Your task to perform on an android device: Clear the shopping cart on newegg.com. Add lenovo thinkpad to the cart on newegg.com Image 0: 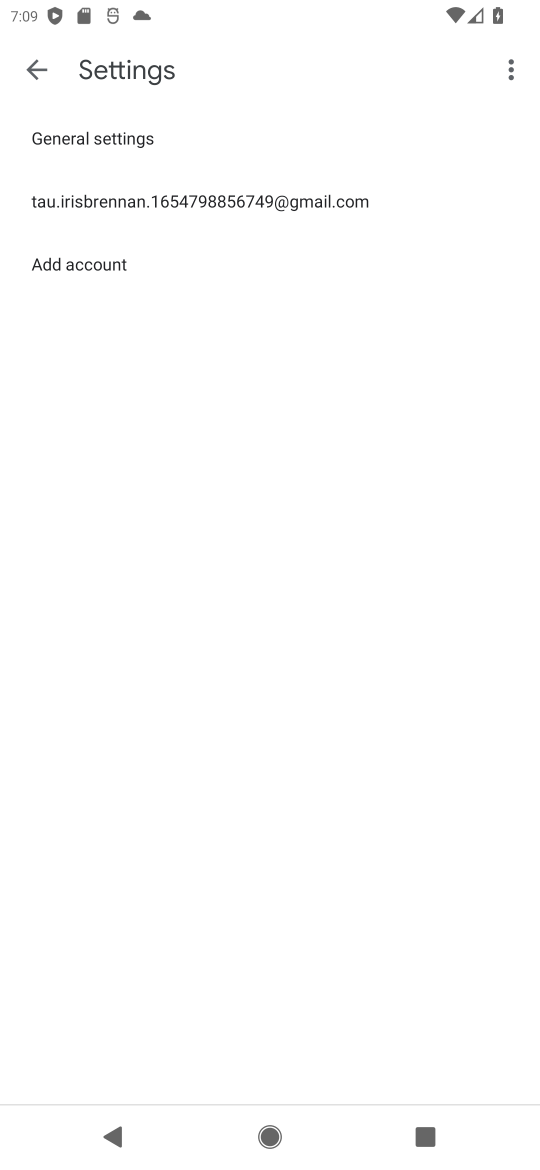
Step 0: press home button
Your task to perform on an android device: Clear the shopping cart on newegg.com. Add lenovo thinkpad to the cart on newegg.com Image 1: 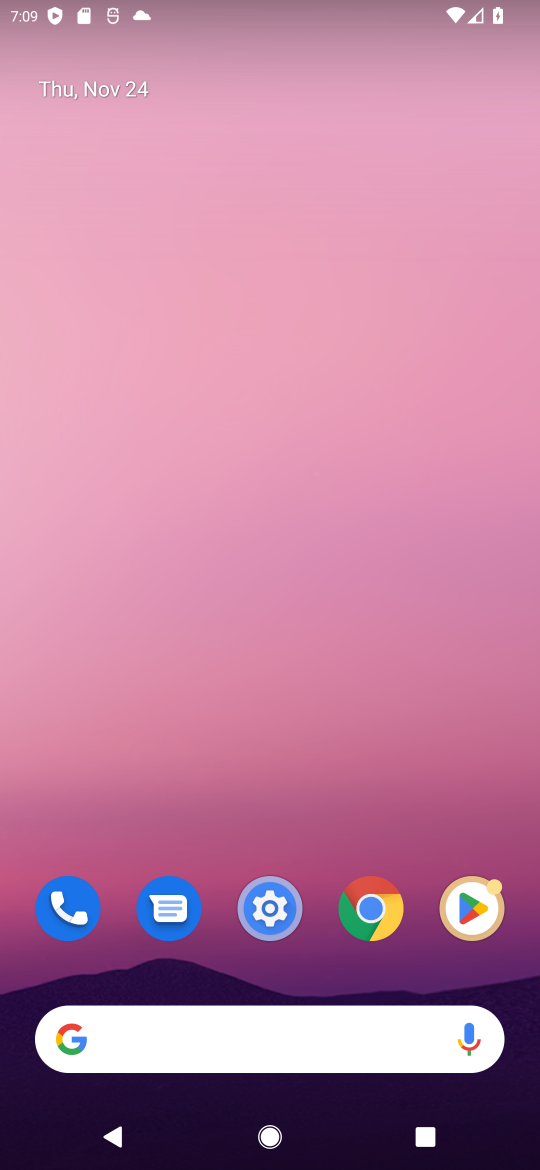
Step 1: click (368, 1020)
Your task to perform on an android device: Clear the shopping cart on newegg.com. Add lenovo thinkpad to the cart on newegg.com Image 2: 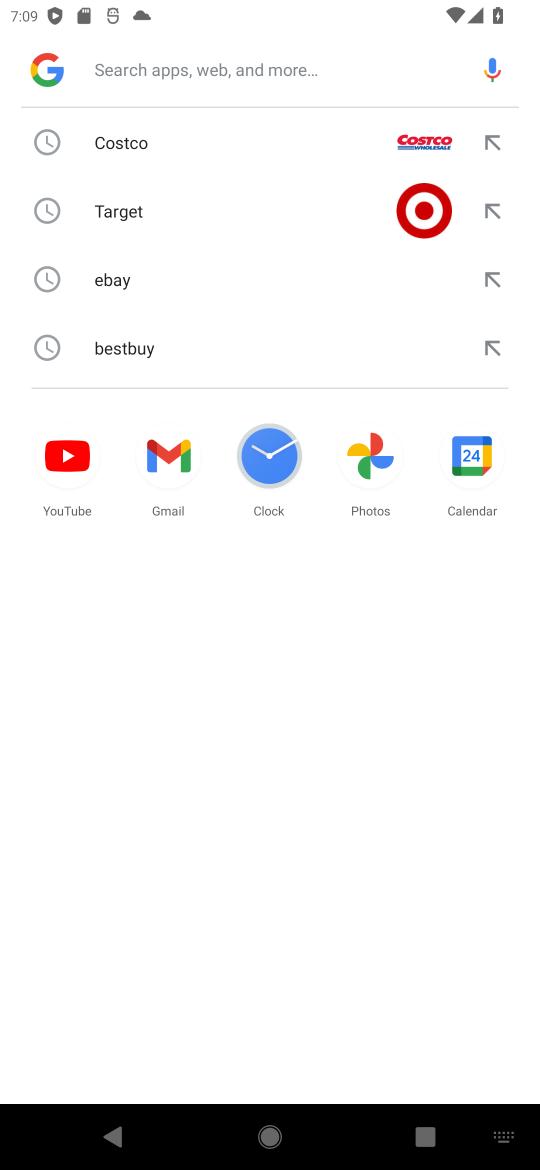
Step 2: type "newegg"
Your task to perform on an android device: Clear the shopping cart on newegg.com. Add lenovo thinkpad to the cart on newegg.com Image 3: 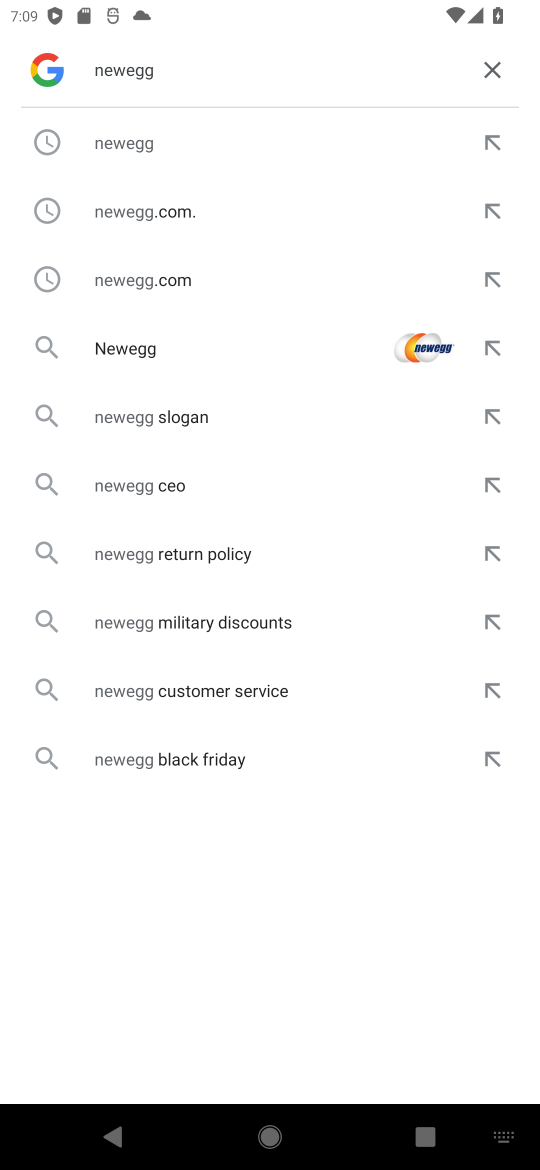
Step 3: click (224, 138)
Your task to perform on an android device: Clear the shopping cart on newegg.com. Add lenovo thinkpad to the cart on newegg.com Image 4: 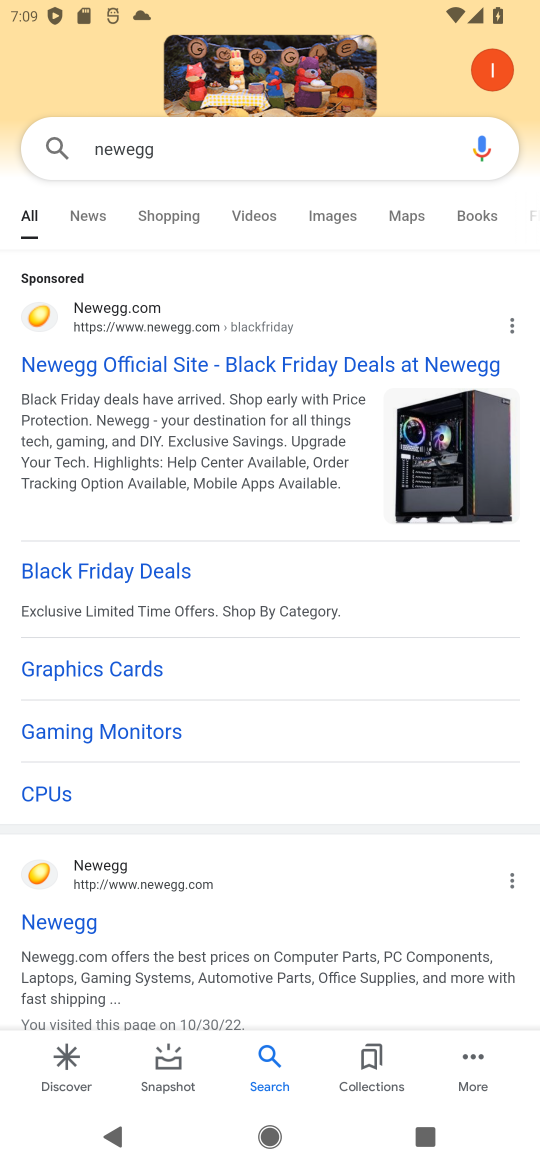
Step 4: click (40, 379)
Your task to perform on an android device: Clear the shopping cart on newegg.com. Add lenovo thinkpad to the cart on newegg.com Image 5: 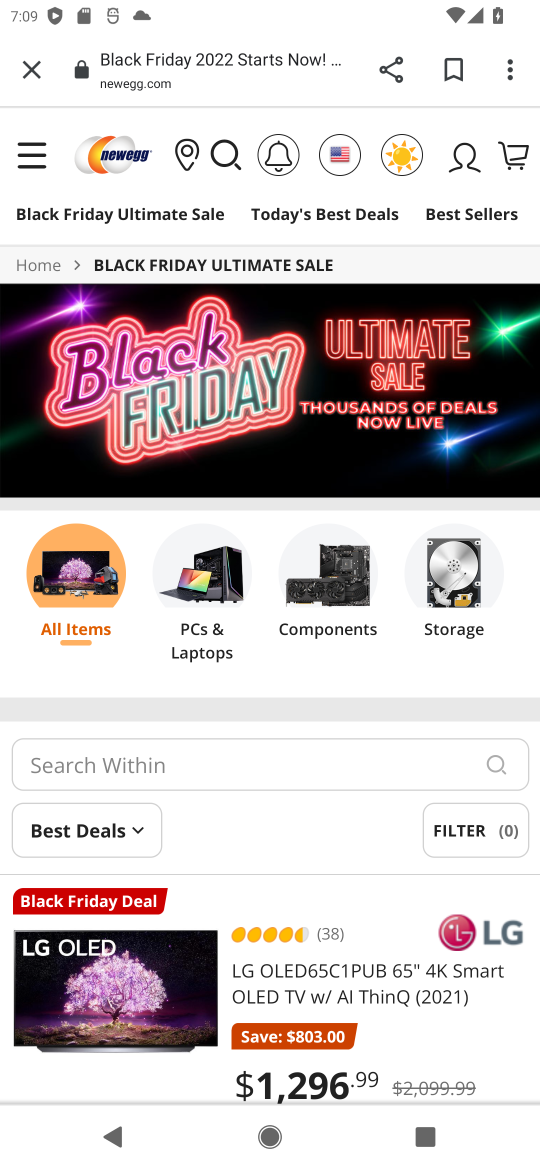
Step 5: drag from (318, 885) to (254, 623)
Your task to perform on an android device: Clear the shopping cart on newegg.com. Add lenovo thinkpad to the cart on newegg.com Image 6: 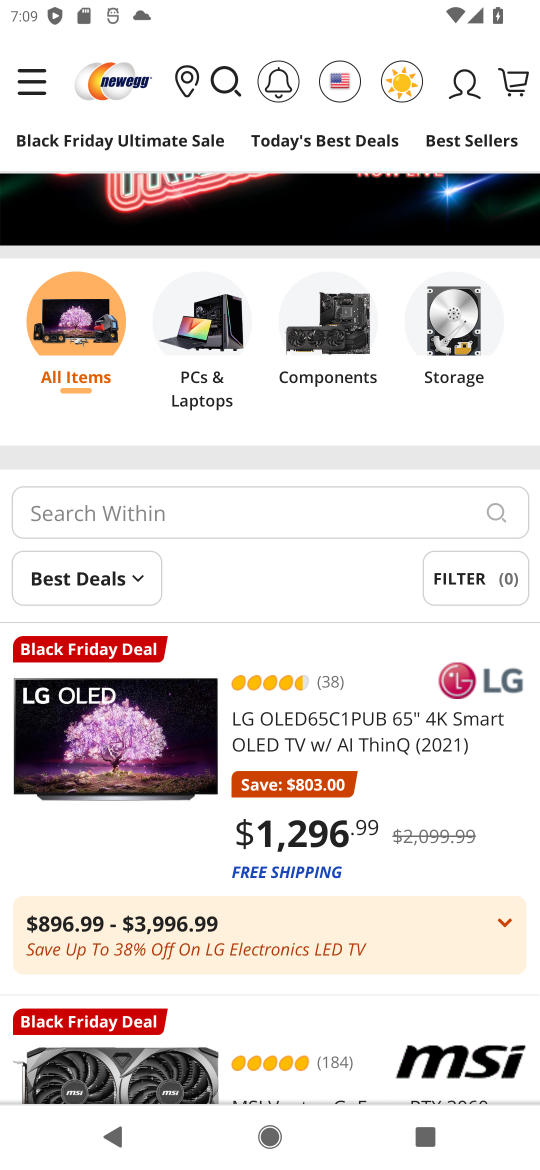
Step 6: click (255, 505)
Your task to perform on an android device: Clear the shopping cart on newegg.com. Add lenovo thinkpad to the cart on newegg.com Image 7: 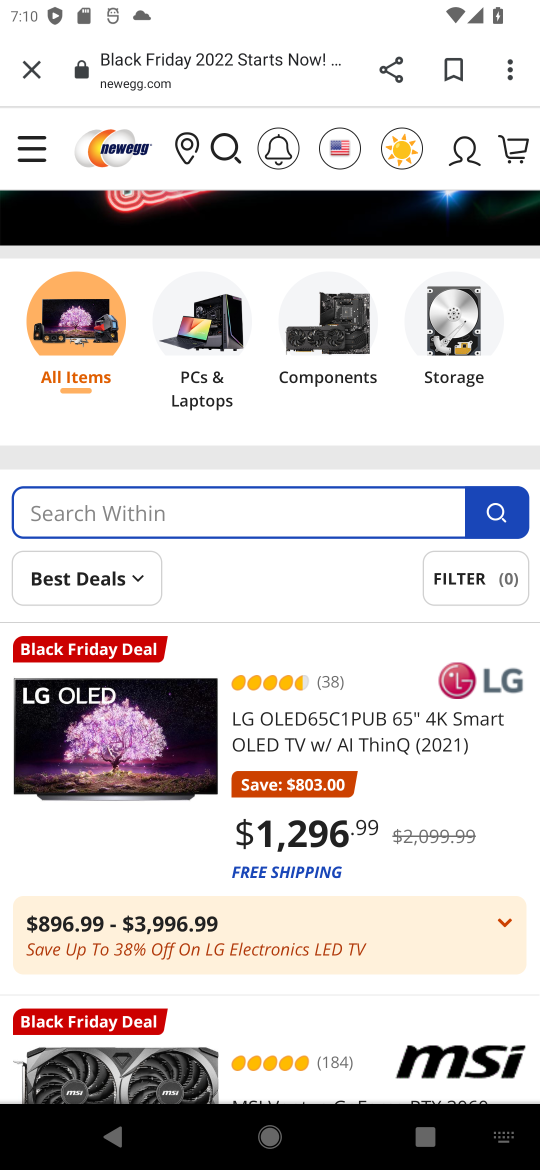
Step 7: type "lenovo thikpad"
Your task to perform on an android device: Clear the shopping cart on newegg.com. Add lenovo thinkpad to the cart on newegg.com Image 8: 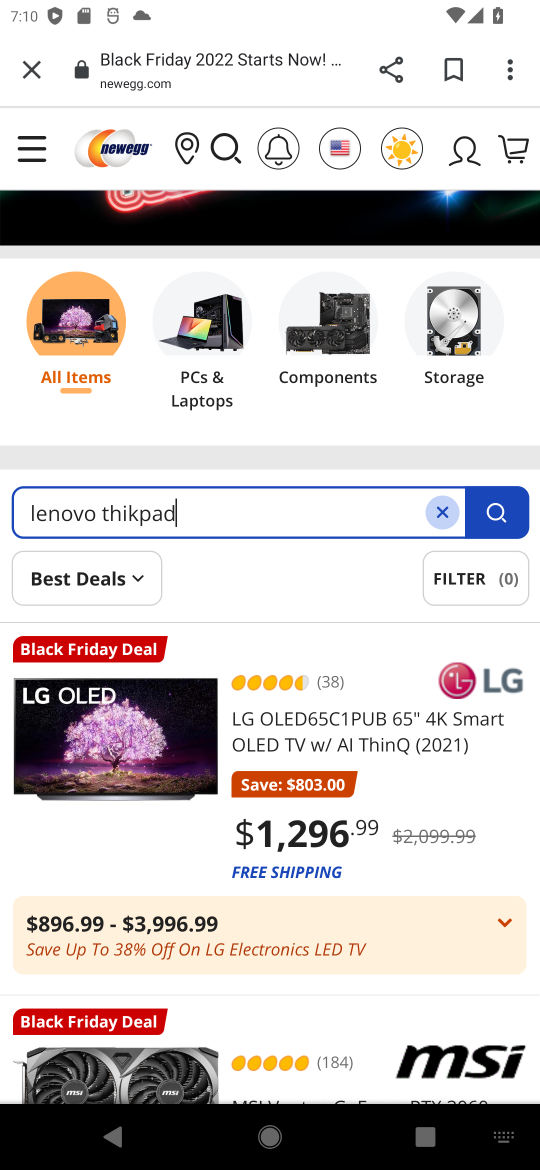
Step 8: click (492, 515)
Your task to perform on an android device: Clear the shopping cart on newegg.com. Add lenovo thinkpad to the cart on newegg.com Image 9: 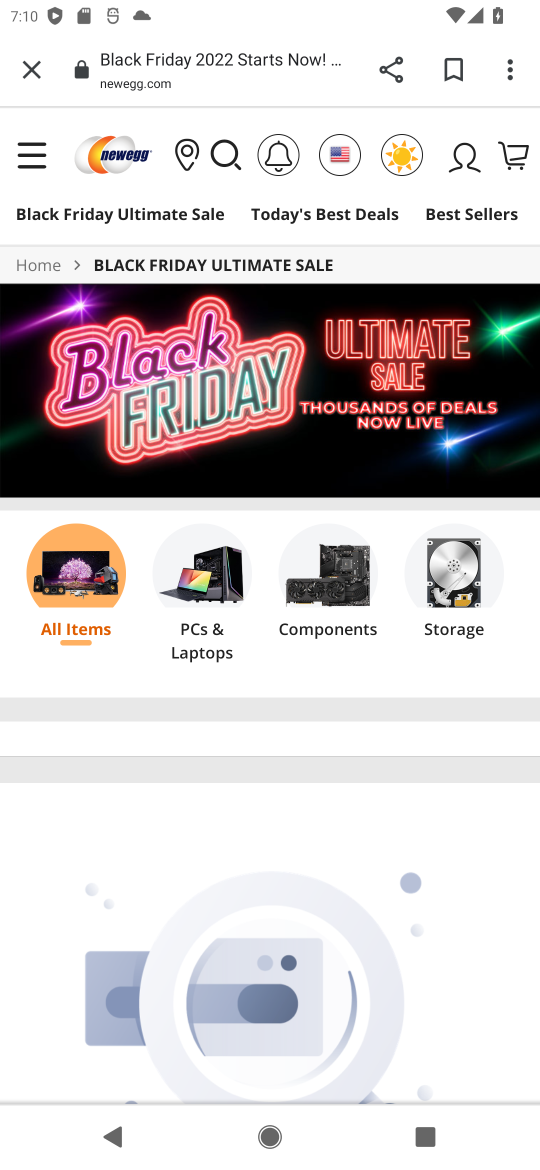
Step 9: task complete